Your task to perform on an android device: Show me productivity apps on the Play Store Image 0: 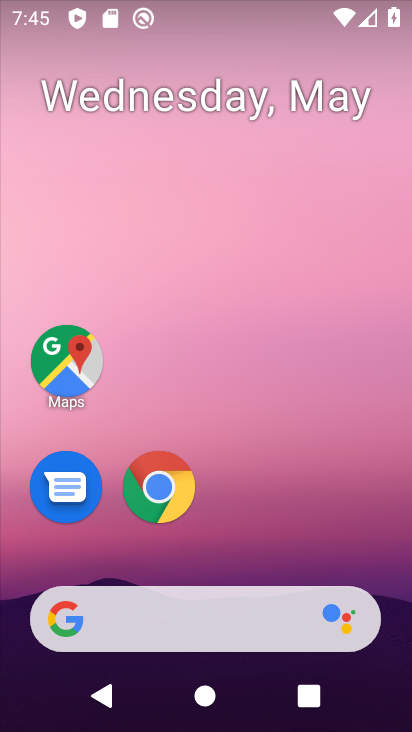
Step 0: drag from (247, 522) to (258, 49)
Your task to perform on an android device: Show me productivity apps on the Play Store Image 1: 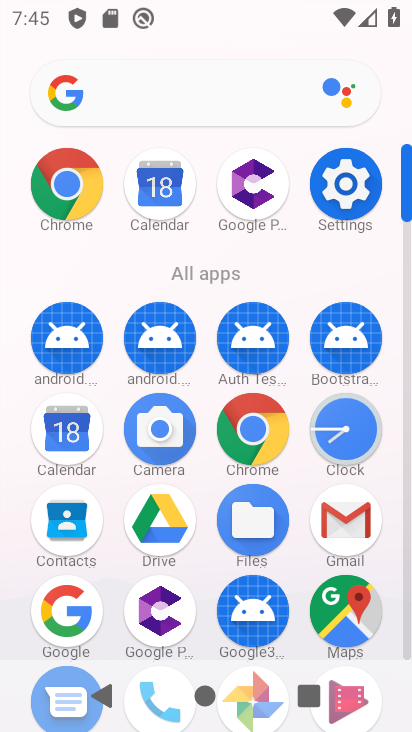
Step 1: drag from (204, 476) to (222, 208)
Your task to perform on an android device: Show me productivity apps on the Play Store Image 2: 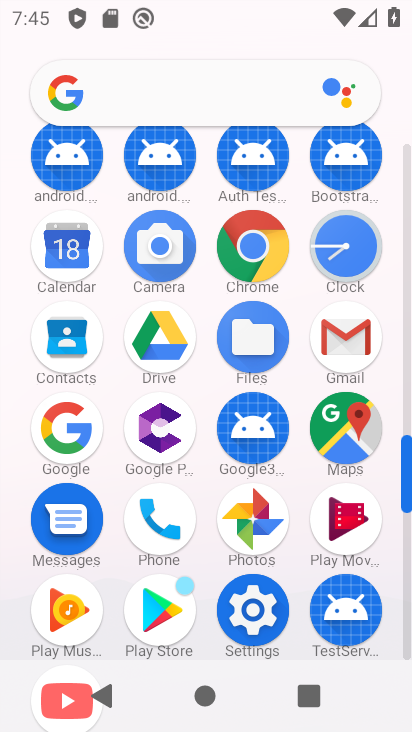
Step 2: click (158, 583)
Your task to perform on an android device: Show me productivity apps on the Play Store Image 3: 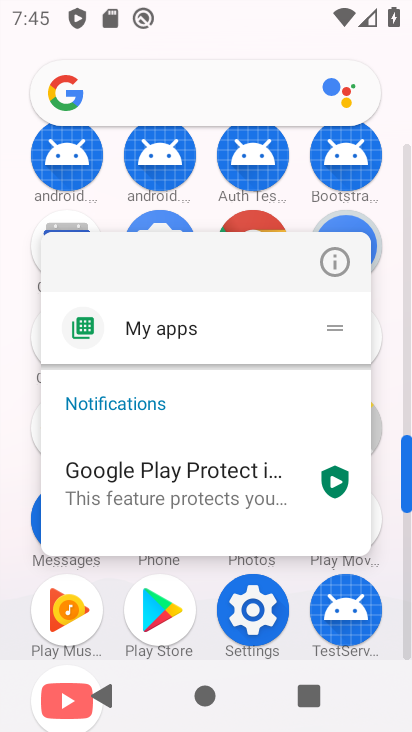
Step 3: click (155, 586)
Your task to perform on an android device: Show me productivity apps on the Play Store Image 4: 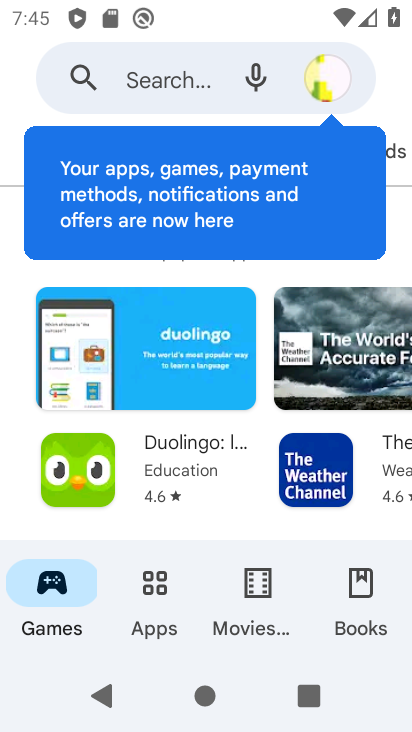
Step 4: click (155, 578)
Your task to perform on an android device: Show me productivity apps on the Play Store Image 5: 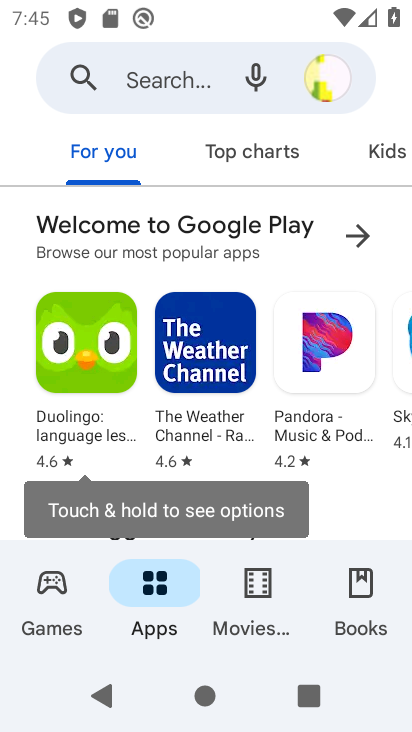
Step 5: drag from (372, 142) to (120, 158)
Your task to perform on an android device: Show me productivity apps on the Play Store Image 6: 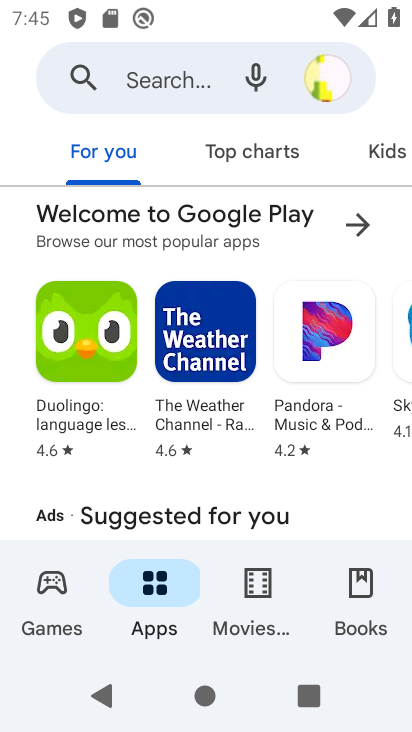
Step 6: drag from (161, 138) to (68, 152)
Your task to perform on an android device: Show me productivity apps on the Play Store Image 7: 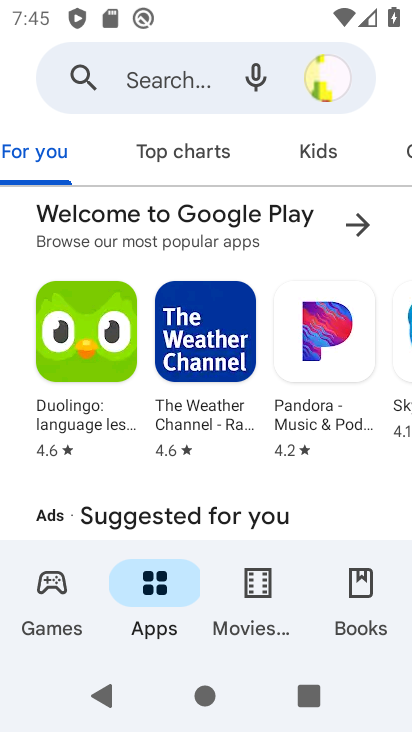
Step 7: drag from (315, 148) to (65, 161)
Your task to perform on an android device: Show me productivity apps on the Play Store Image 8: 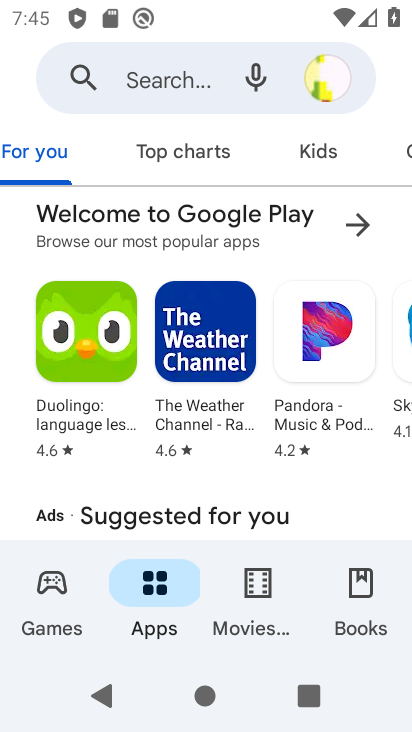
Step 8: drag from (177, 141) to (24, 112)
Your task to perform on an android device: Show me productivity apps on the Play Store Image 9: 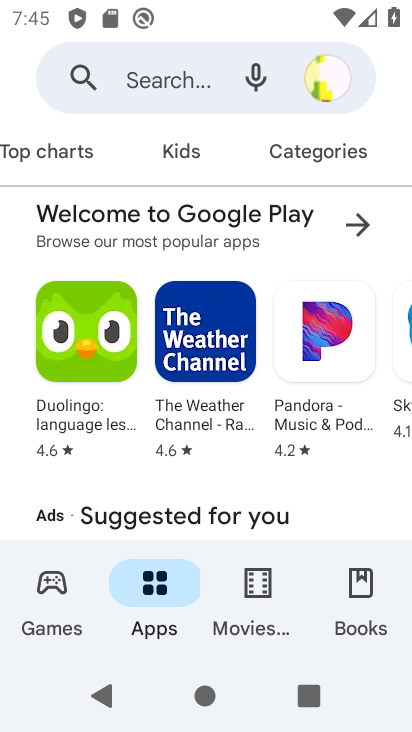
Step 9: click (318, 148)
Your task to perform on an android device: Show me productivity apps on the Play Store Image 10: 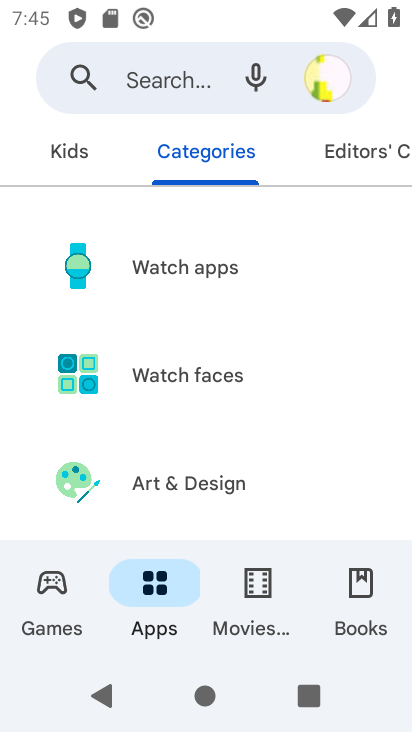
Step 10: drag from (253, 474) to (285, 150)
Your task to perform on an android device: Show me productivity apps on the Play Store Image 11: 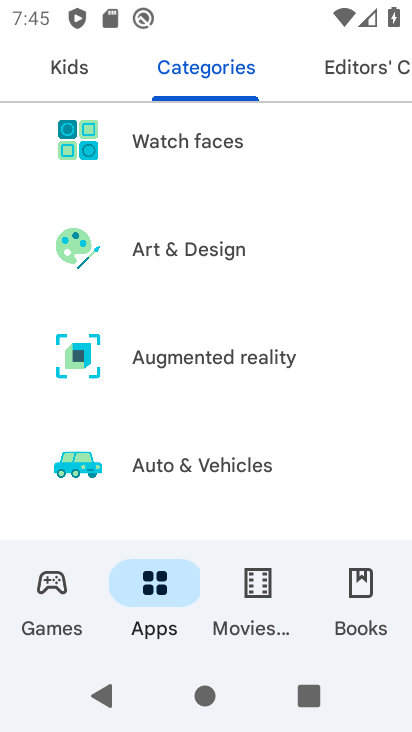
Step 11: drag from (285, 409) to (283, 130)
Your task to perform on an android device: Show me productivity apps on the Play Store Image 12: 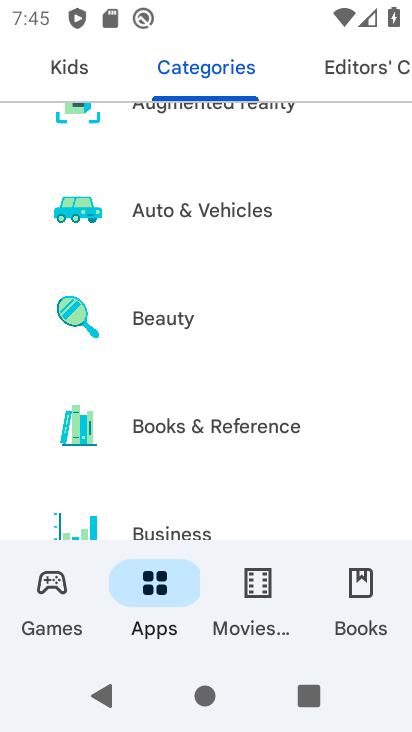
Step 12: drag from (266, 411) to (264, 173)
Your task to perform on an android device: Show me productivity apps on the Play Store Image 13: 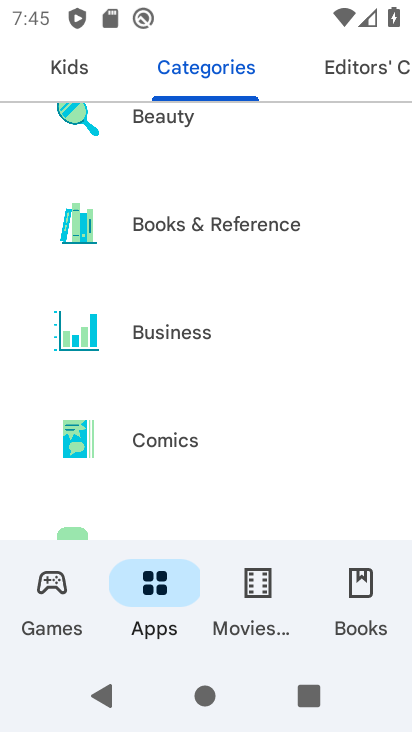
Step 13: drag from (222, 426) to (230, 135)
Your task to perform on an android device: Show me productivity apps on the Play Store Image 14: 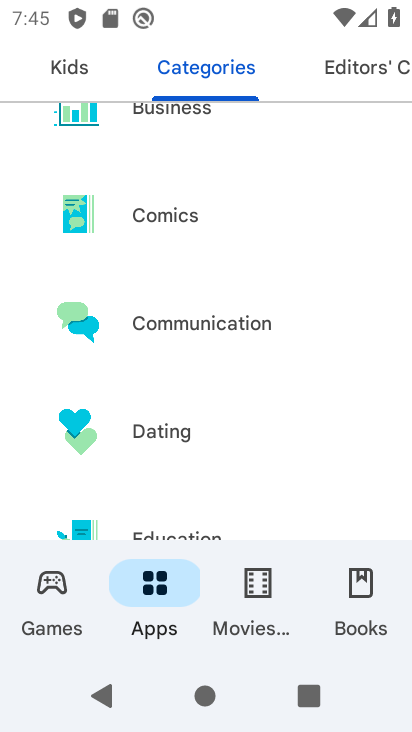
Step 14: drag from (212, 443) to (226, 181)
Your task to perform on an android device: Show me productivity apps on the Play Store Image 15: 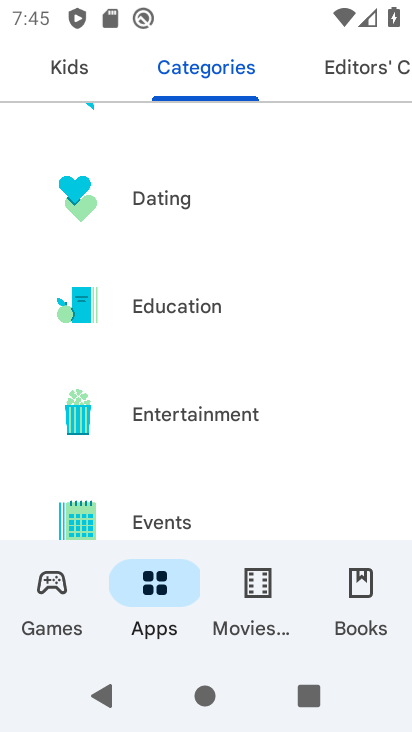
Step 15: drag from (236, 502) to (251, 273)
Your task to perform on an android device: Show me productivity apps on the Play Store Image 16: 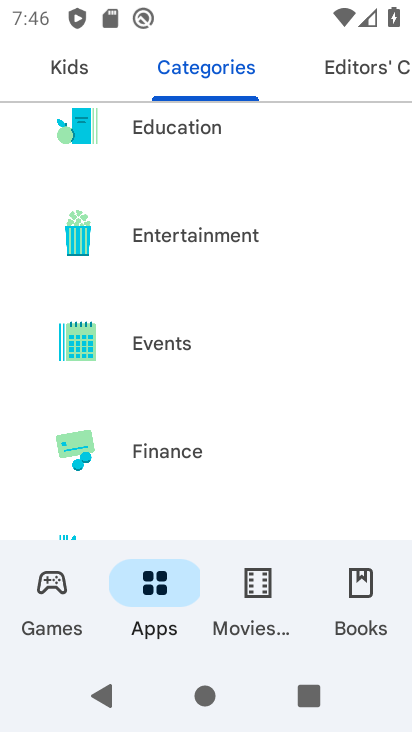
Step 16: drag from (297, 383) to (304, 144)
Your task to perform on an android device: Show me productivity apps on the Play Store Image 17: 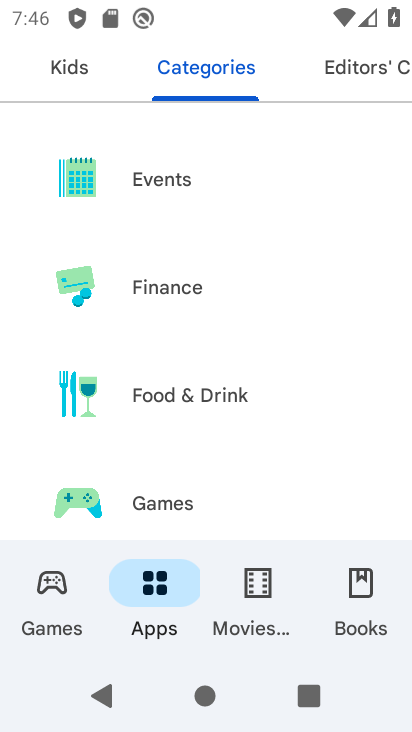
Step 17: drag from (199, 443) to (206, 100)
Your task to perform on an android device: Show me productivity apps on the Play Store Image 18: 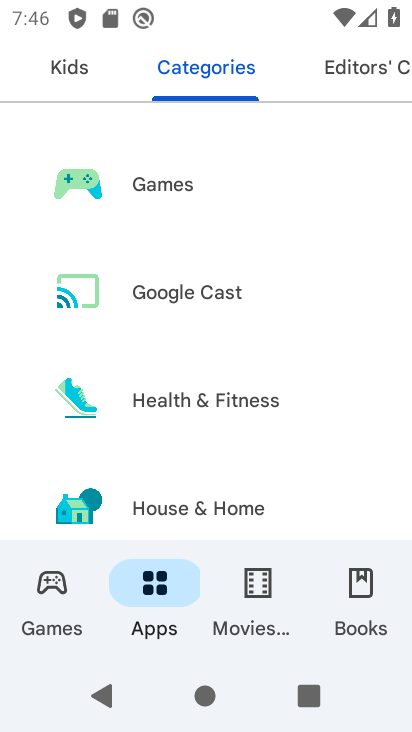
Step 18: drag from (183, 420) to (197, 119)
Your task to perform on an android device: Show me productivity apps on the Play Store Image 19: 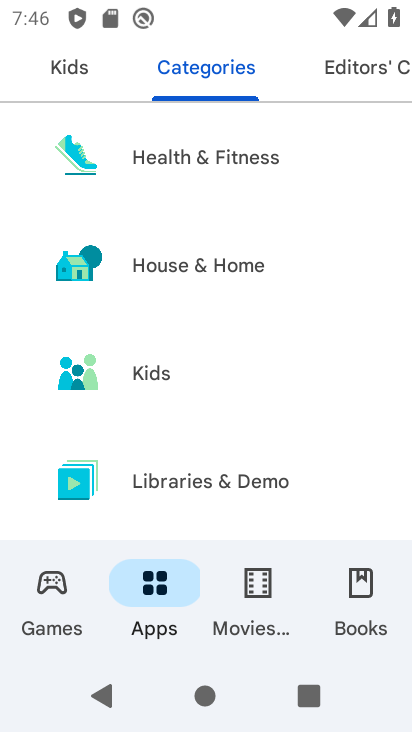
Step 19: drag from (200, 486) to (239, 133)
Your task to perform on an android device: Show me productivity apps on the Play Store Image 20: 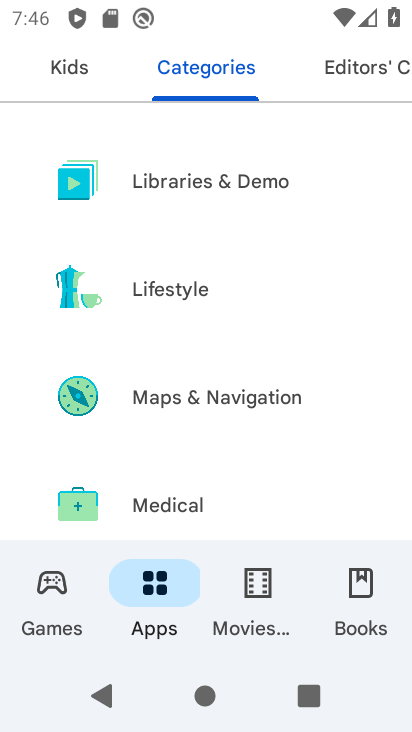
Step 20: drag from (218, 441) to (227, 176)
Your task to perform on an android device: Show me productivity apps on the Play Store Image 21: 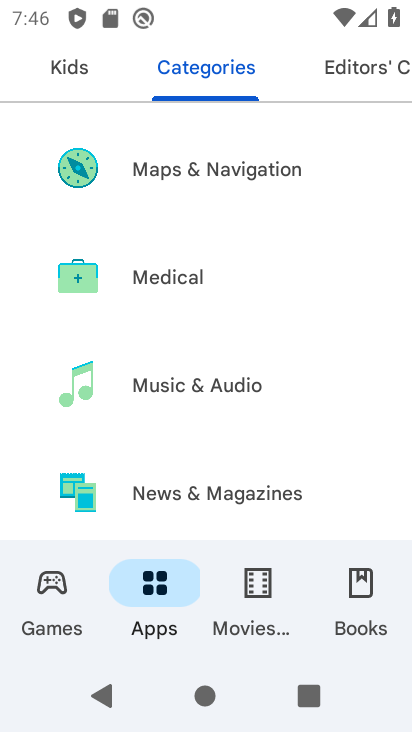
Step 21: drag from (193, 436) to (215, 210)
Your task to perform on an android device: Show me productivity apps on the Play Store Image 22: 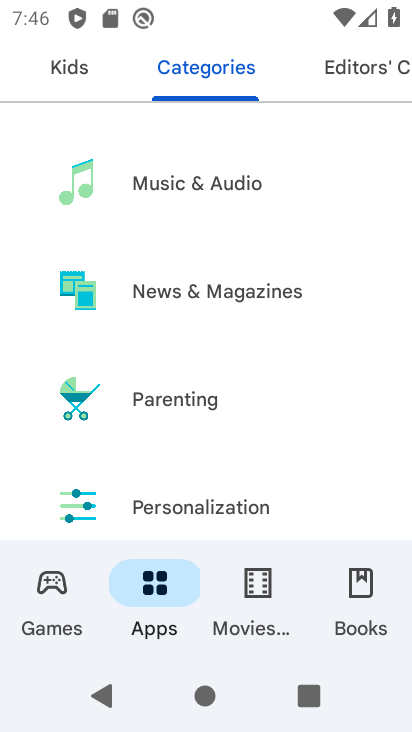
Step 22: drag from (194, 432) to (203, 177)
Your task to perform on an android device: Show me productivity apps on the Play Store Image 23: 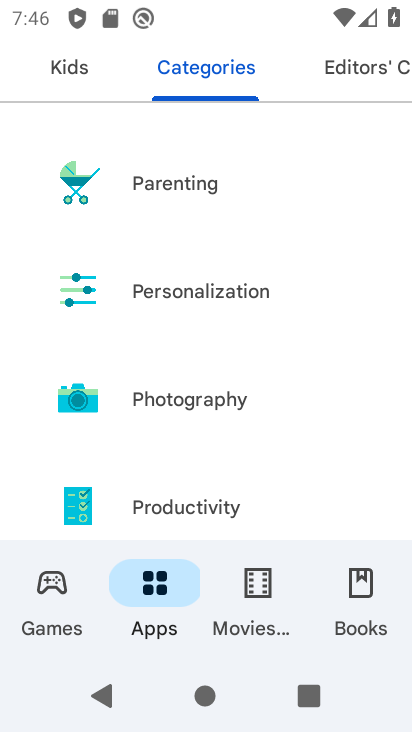
Step 23: click (199, 493)
Your task to perform on an android device: Show me productivity apps on the Play Store Image 24: 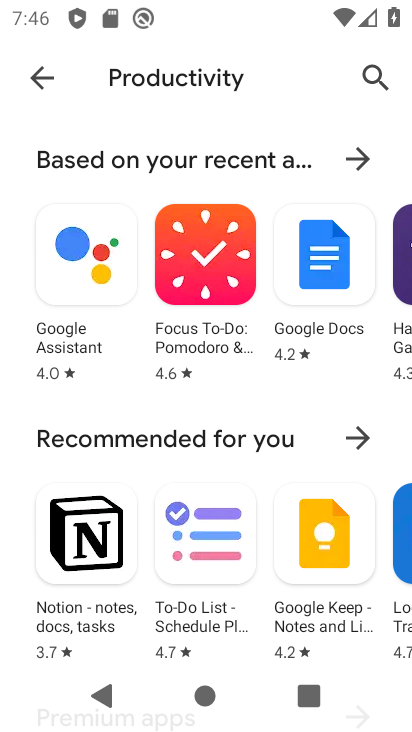
Step 24: task complete